Your task to perform on an android device: Open Yahoo.com Image 0: 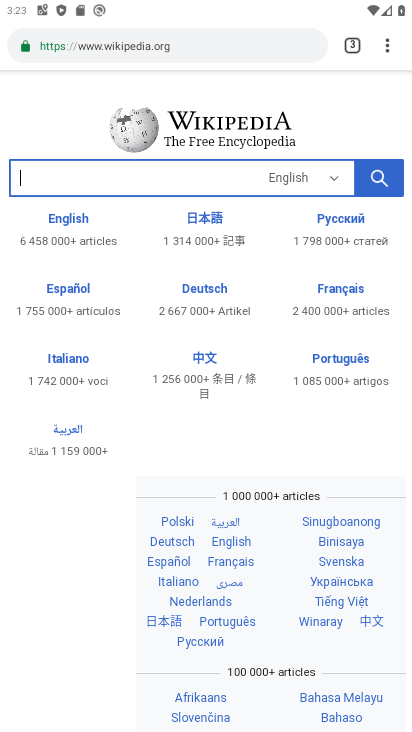
Step 0: press back button
Your task to perform on an android device: Open Yahoo.com Image 1: 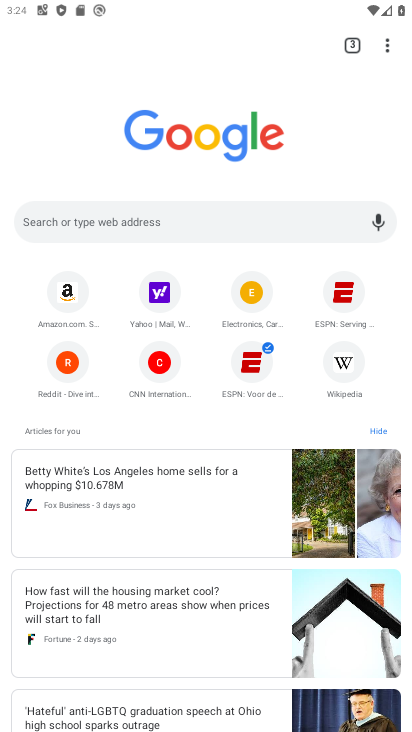
Step 1: click (164, 307)
Your task to perform on an android device: Open Yahoo.com Image 2: 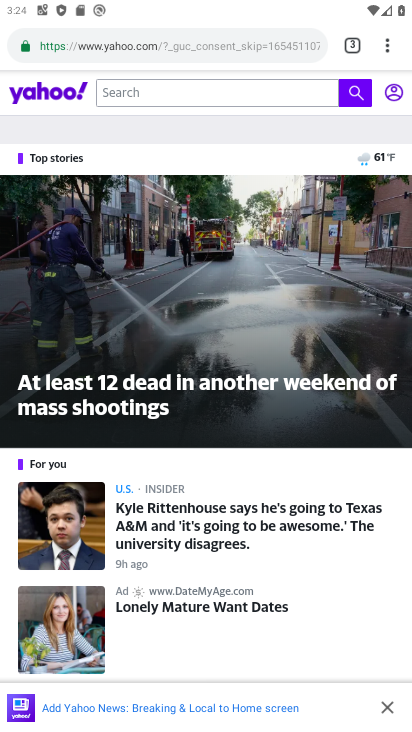
Step 2: task complete